Your task to perform on an android device: turn off smart reply in the gmail app Image 0: 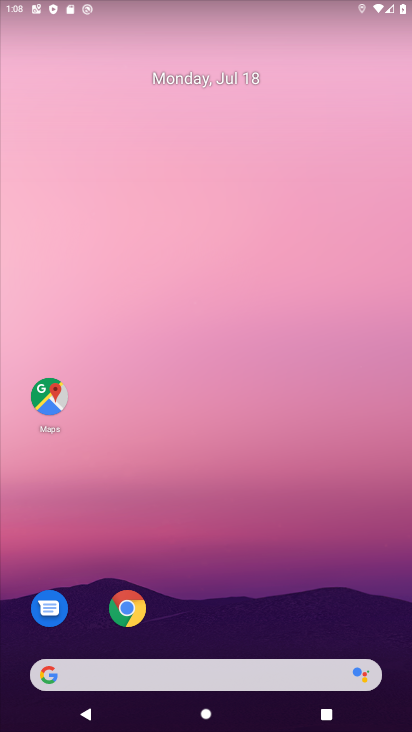
Step 0: drag from (331, 631) to (190, 3)
Your task to perform on an android device: turn off smart reply in the gmail app Image 1: 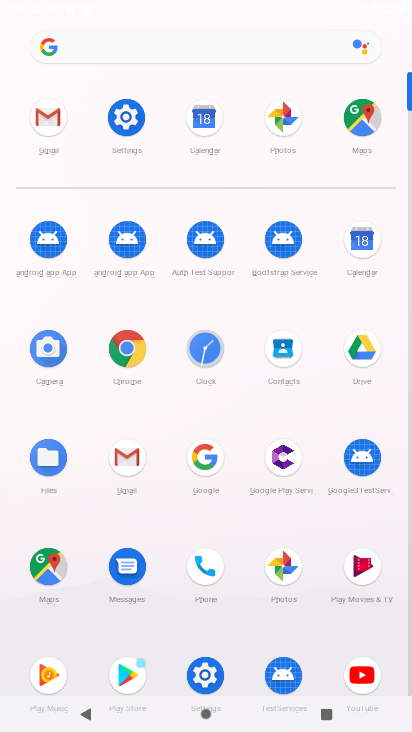
Step 1: click (54, 118)
Your task to perform on an android device: turn off smart reply in the gmail app Image 2: 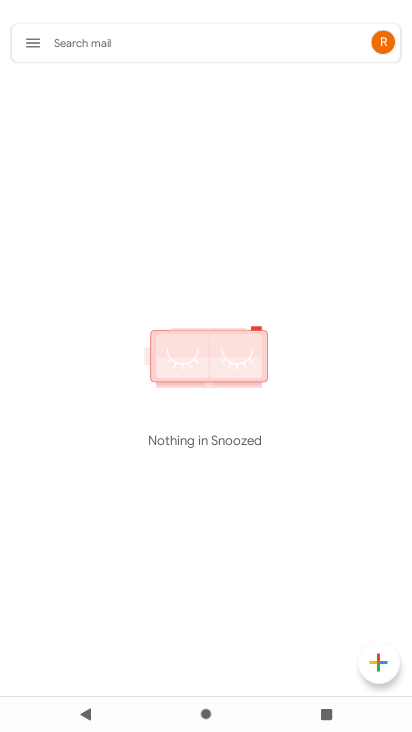
Step 2: click (37, 47)
Your task to perform on an android device: turn off smart reply in the gmail app Image 3: 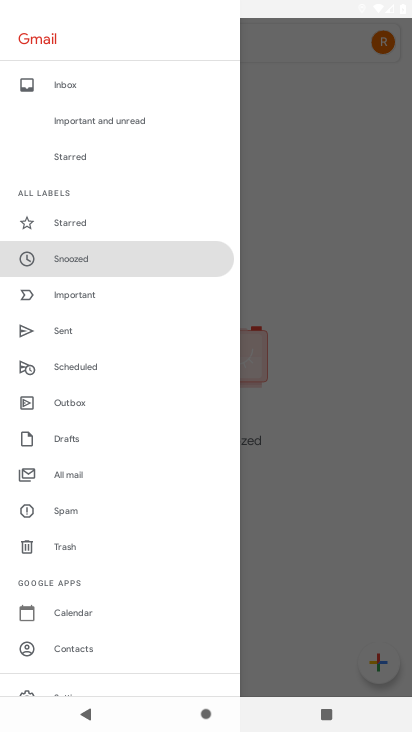
Step 3: drag from (97, 683) to (57, 373)
Your task to perform on an android device: turn off smart reply in the gmail app Image 4: 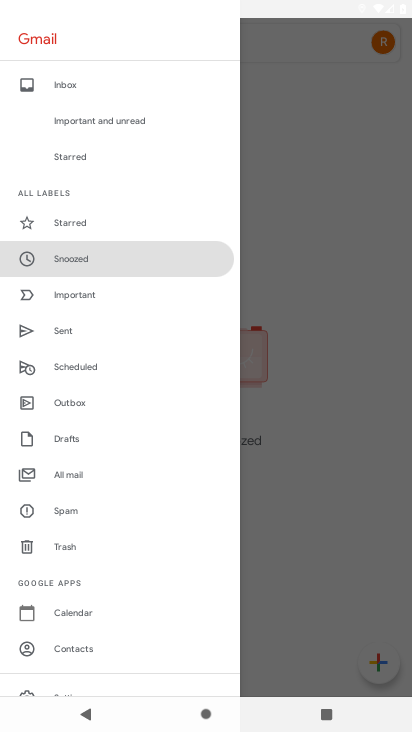
Step 4: drag from (92, 531) to (79, 395)
Your task to perform on an android device: turn off smart reply in the gmail app Image 5: 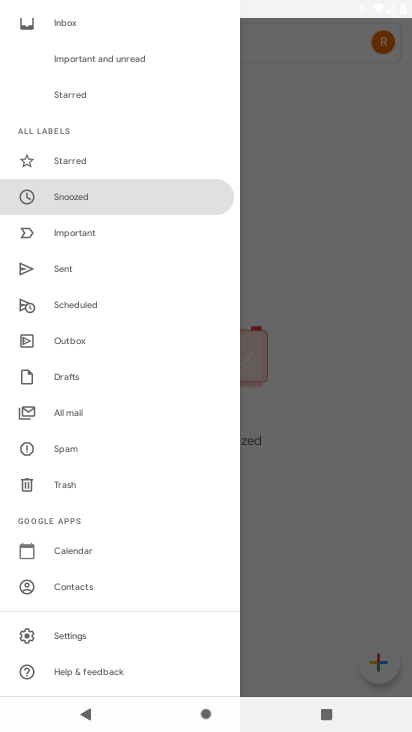
Step 5: click (94, 637)
Your task to perform on an android device: turn off smart reply in the gmail app Image 6: 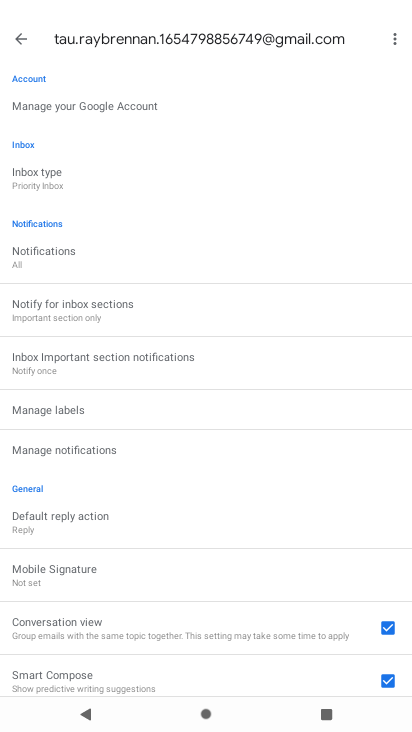
Step 6: drag from (297, 590) to (261, 156)
Your task to perform on an android device: turn off smart reply in the gmail app Image 7: 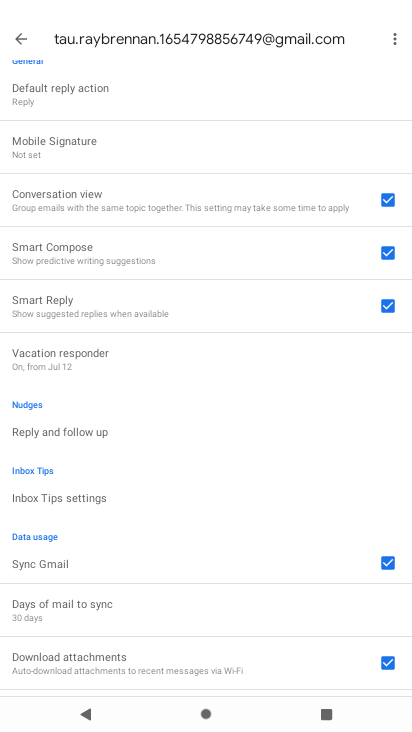
Step 7: click (391, 313)
Your task to perform on an android device: turn off smart reply in the gmail app Image 8: 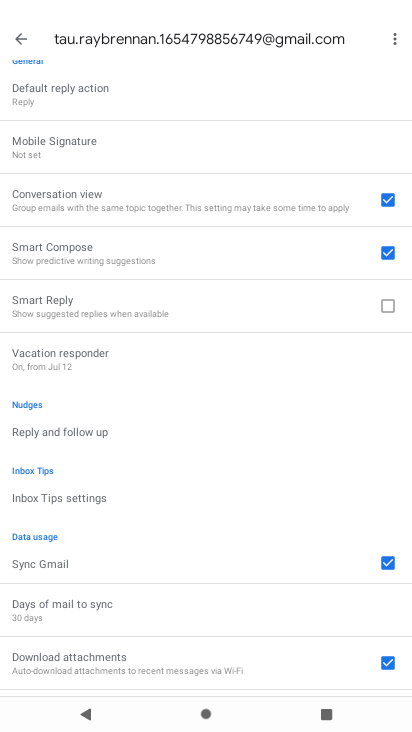
Step 8: task complete